Your task to perform on an android device: change alarm snooze length Image 0: 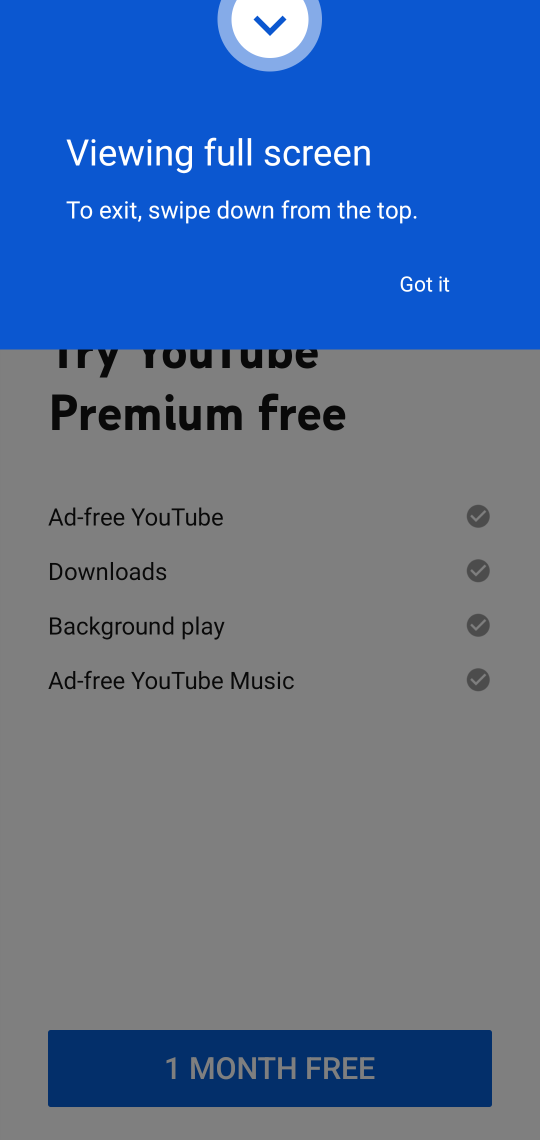
Step 0: press home button
Your task to perform on an android device: change alarm snooze length Image 1: 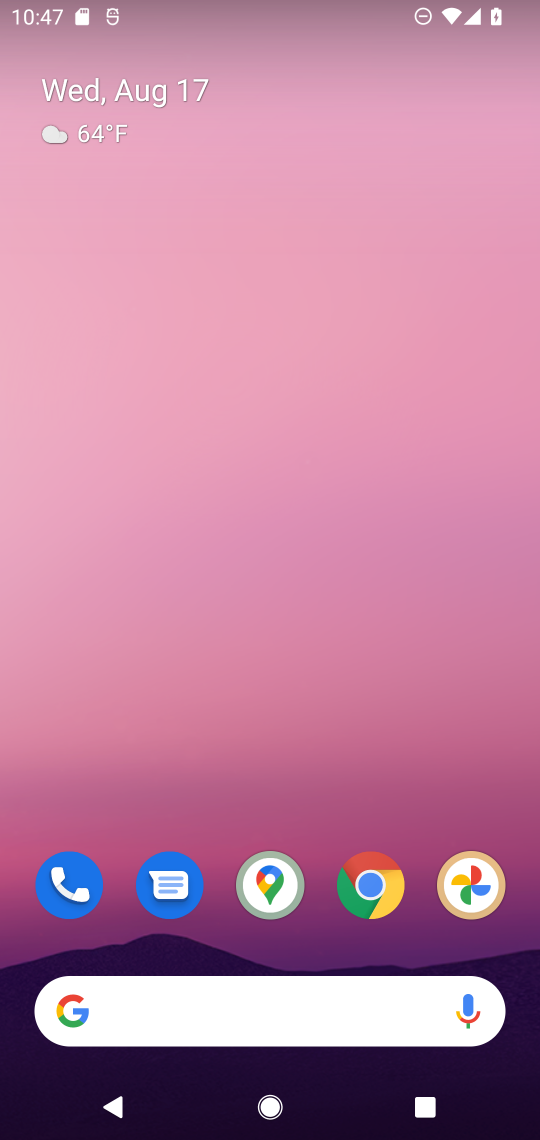
Step 1: drag from (411, 943) to (358, 248)
Your task to perform on an android device: change alarm snooze length Image 2: 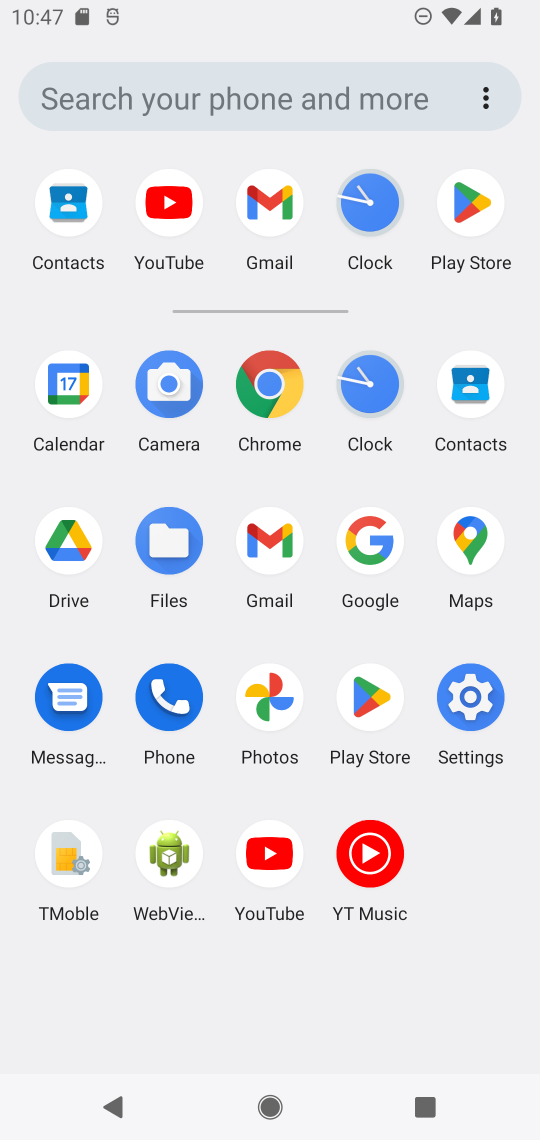
Step 2: click (370, 383)
Your task to perform on an android device: change alarm snooze length Image 3: 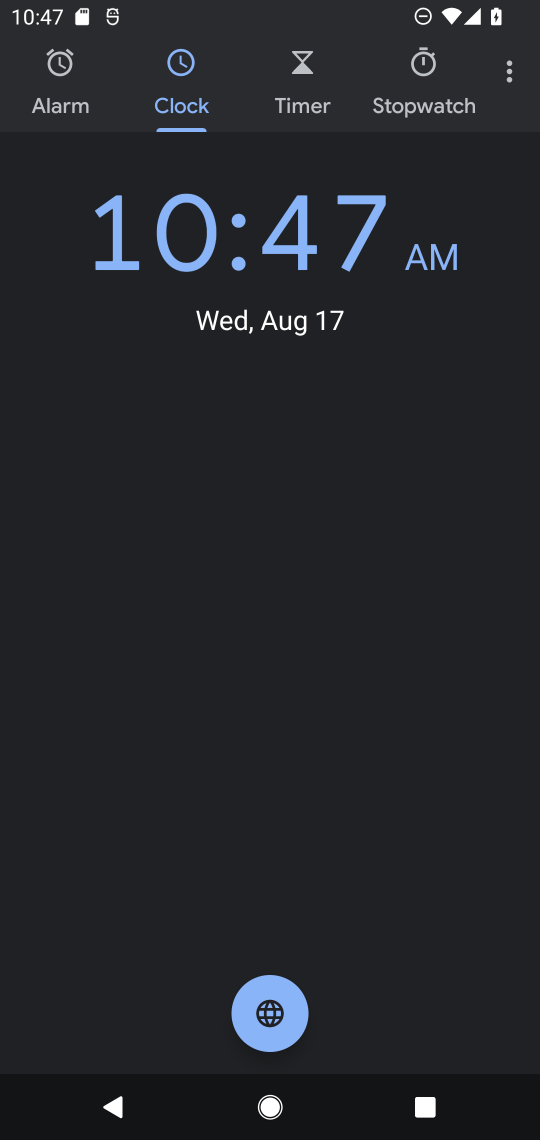
Step 3: click (501, 90)
Your task to perform on an android device: change alarm snooze length Image 4: 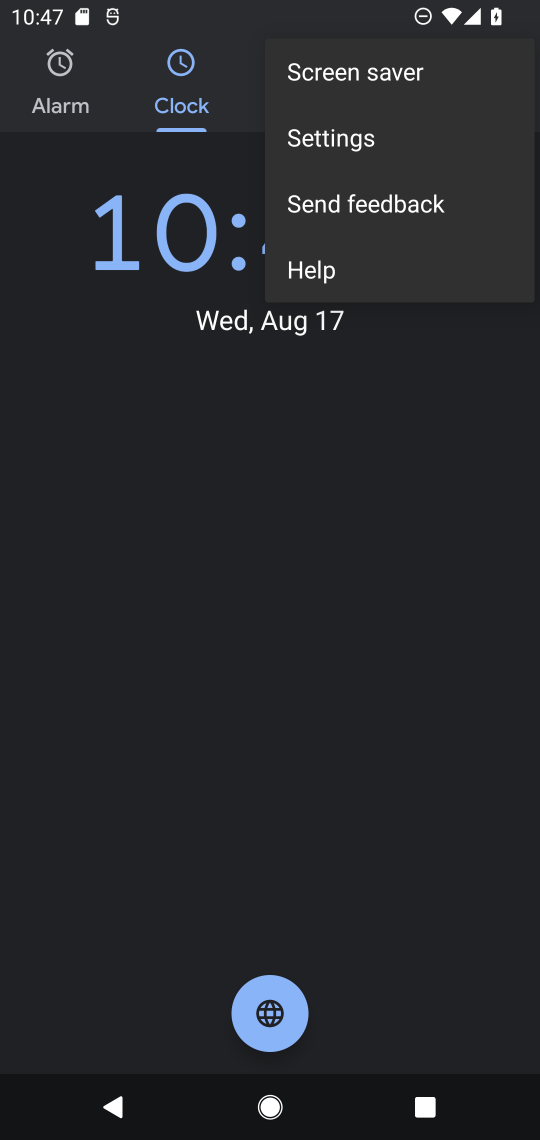
Step 4: click (331, 142)
Your task to perform on an android device: change alarm snooze length Image 5: 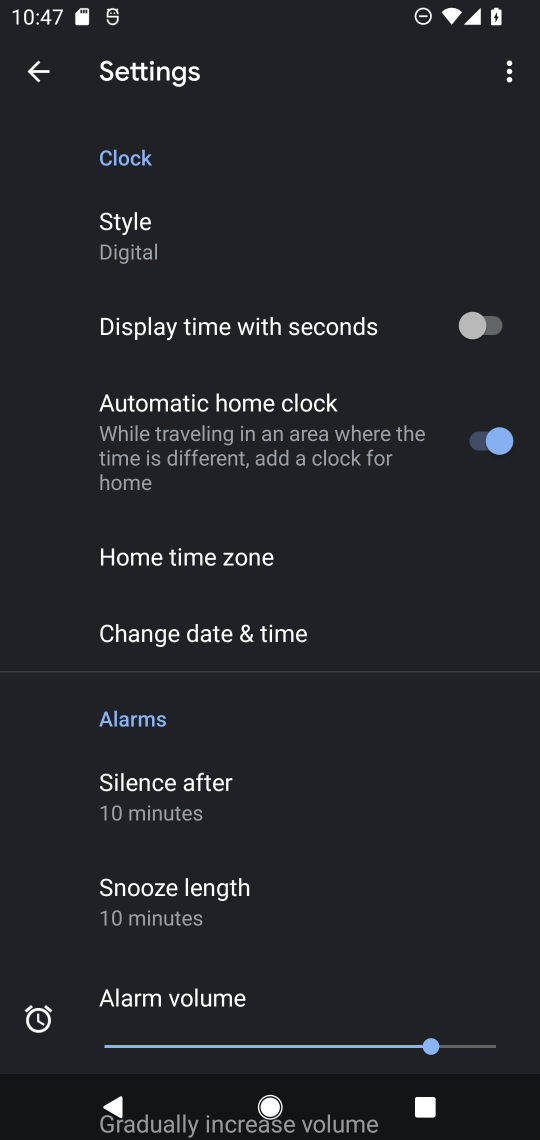
Step 5: click (169, 900)
Your task to perform on an android device: change alarm snooze length Image 6: 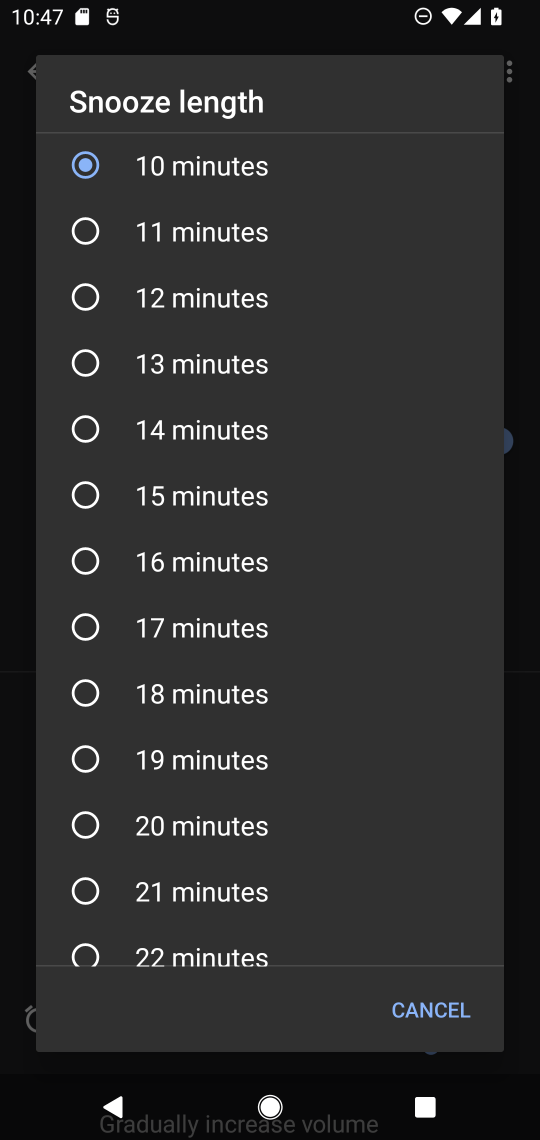
Step 6: click (74, 493)
Your task to perform on an android device: change alarm snooze length Image 7: 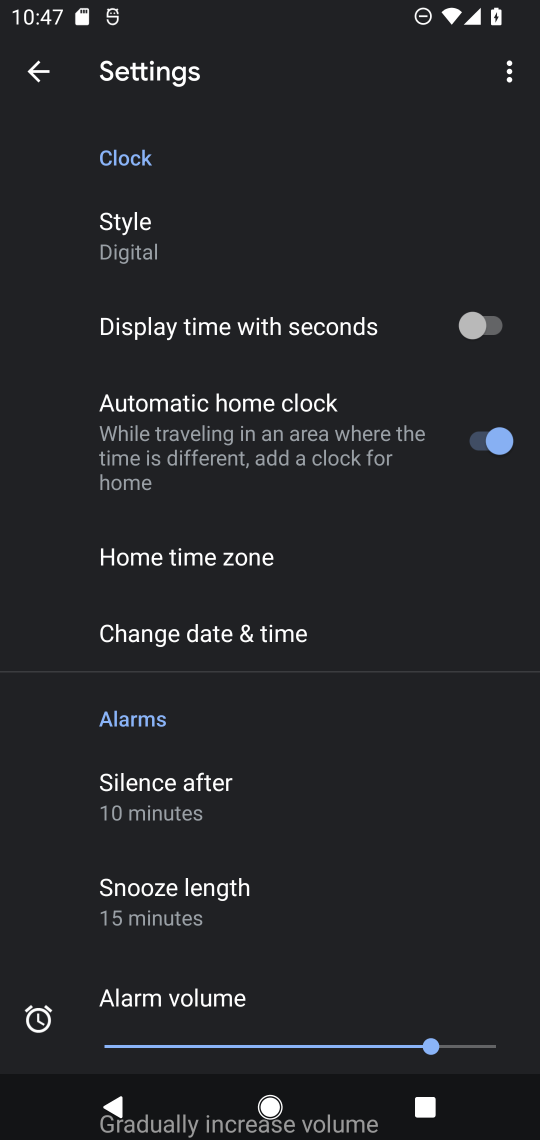
Step 7: task complete